Your task to perform on an android device: Go to internet settings Image 0: 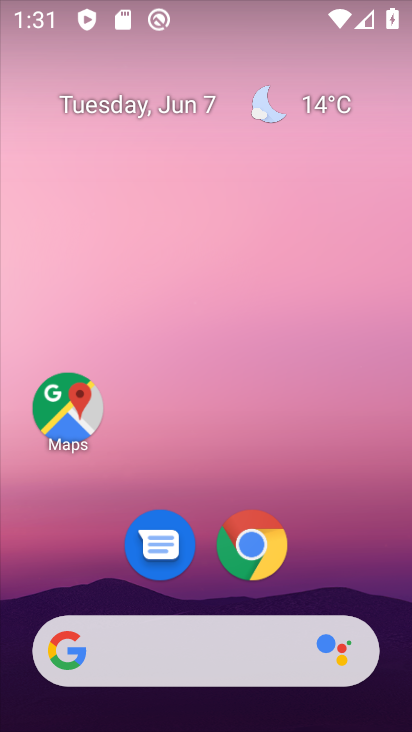
Step 0: drag from (348, 483) to (270, 27)
Your task to perform on an android device: Go to internet settings Image 1: 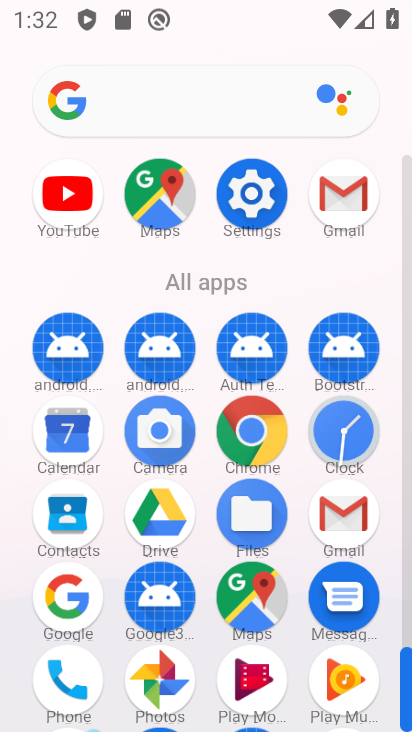
Step 1: click (236, 206)
Your task to perform on an android device: Go to internet settings Image 2: 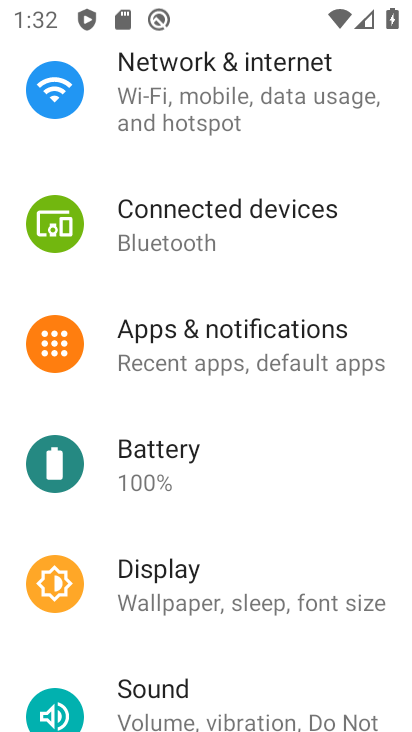
Step 2: click (210, 103)
Your task to perform on an android device: Go to internet settings Image 3: 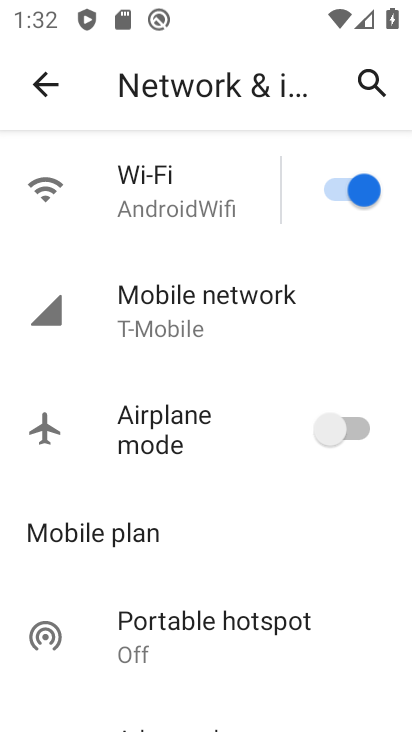
Step 3: task complete